Your task to perform on an android device: Open Chrome and go to settings Image 0: 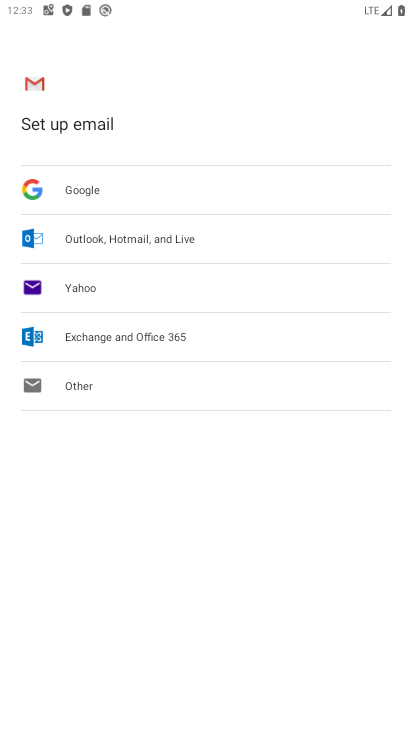
Step 0: press home button
Your task to perform on an android device: Open Chrome and go to settings Image 1: 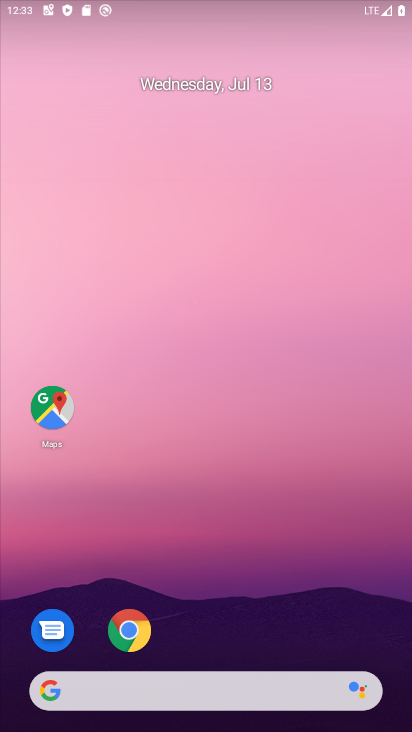
Step 1: drag from (396, 670) to (200, 10)
Your task to perform on an android device: Open Chrome and go to settings Image 2: 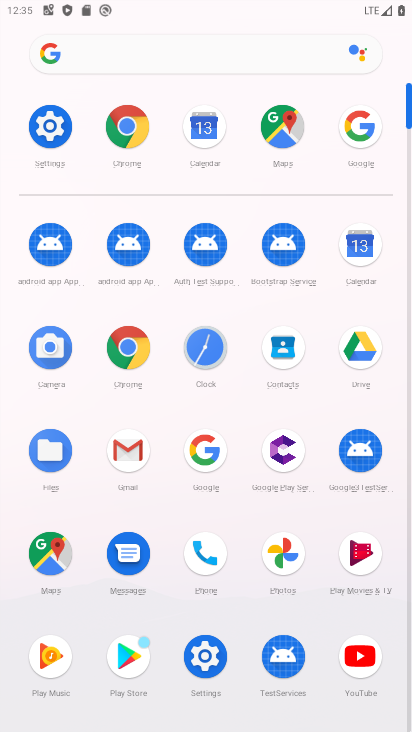
Step 2: click (137, 336)
Your task to perform on an android device: Open Chrome and go to settings Image 3: 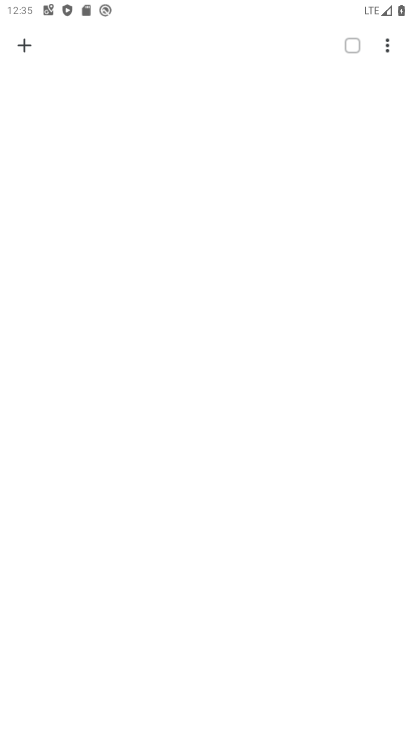
Step 3: click (390, 42)
Your task to perform on an android device: Open Chrome and go to settings Image 4: 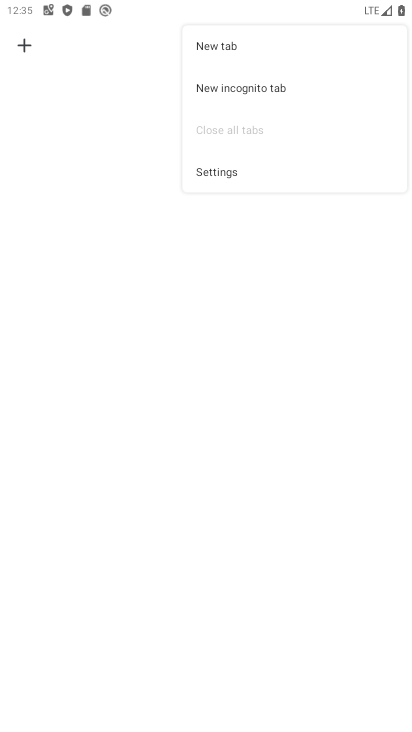
Step 4: click (238, 171)
Your task to perform on an android device: Open Chrome and go to settings Image 5: 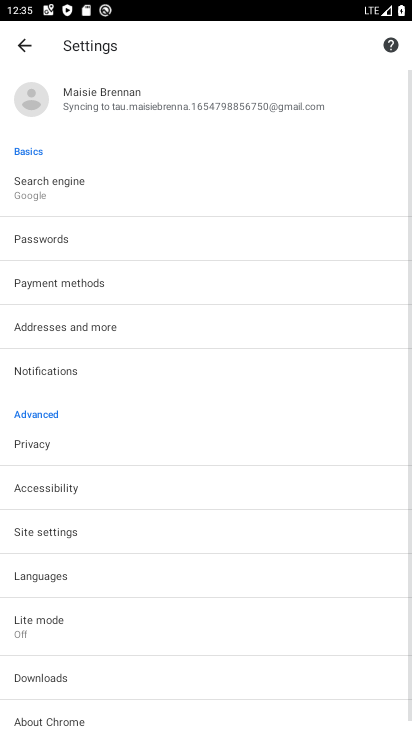
Step 5: task complete